Your task to perform on an android device: Open my contact list Image 0: 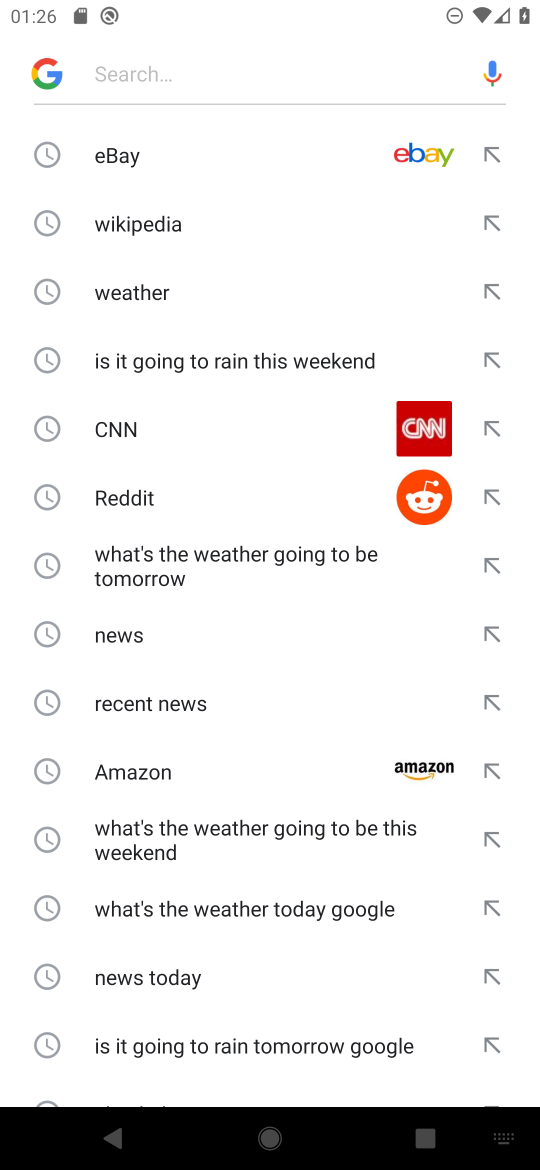
Step 0: press home button
Your task to perform on an android device: Open my contact list Image 1: 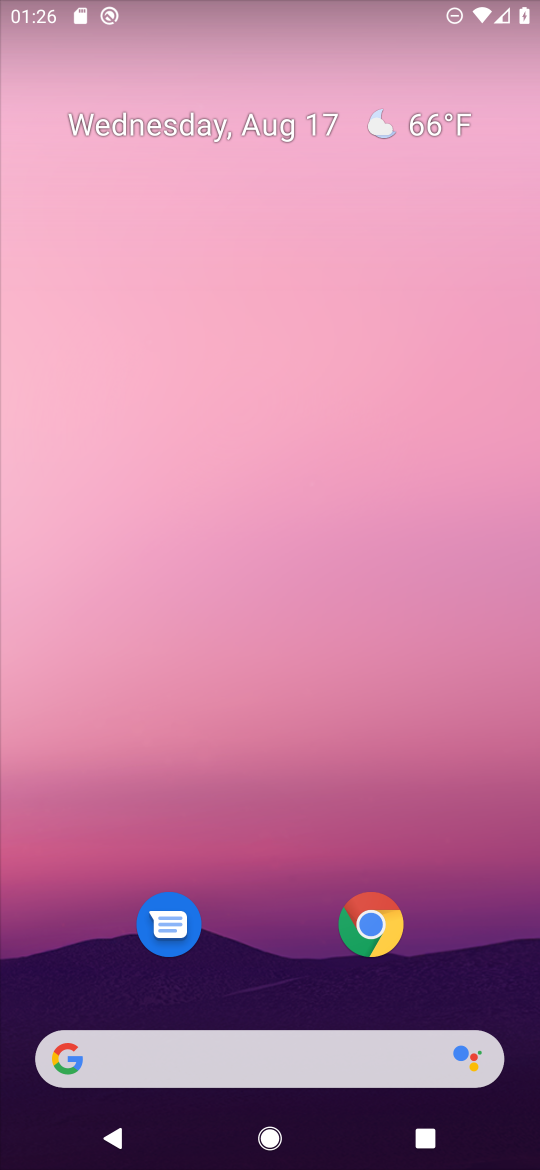
Step 1: drag from (271, 1002) to (245, 397)
Your task to perform on an android device: Open my contact list Image 2: 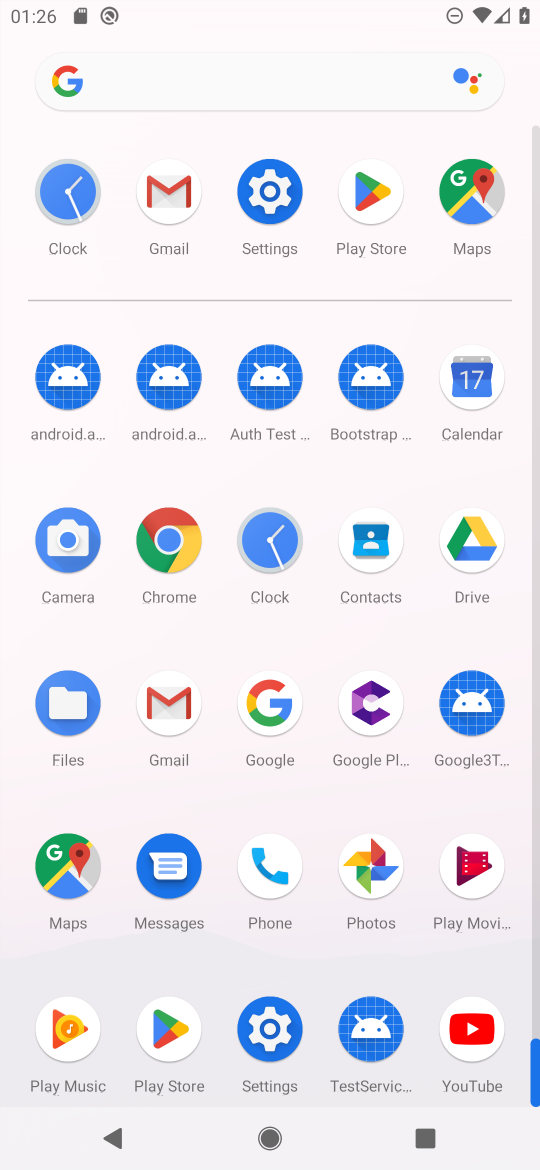
Step 2: click (370, 535)
Your task to perform on an android device: Open my contact list Image 3: 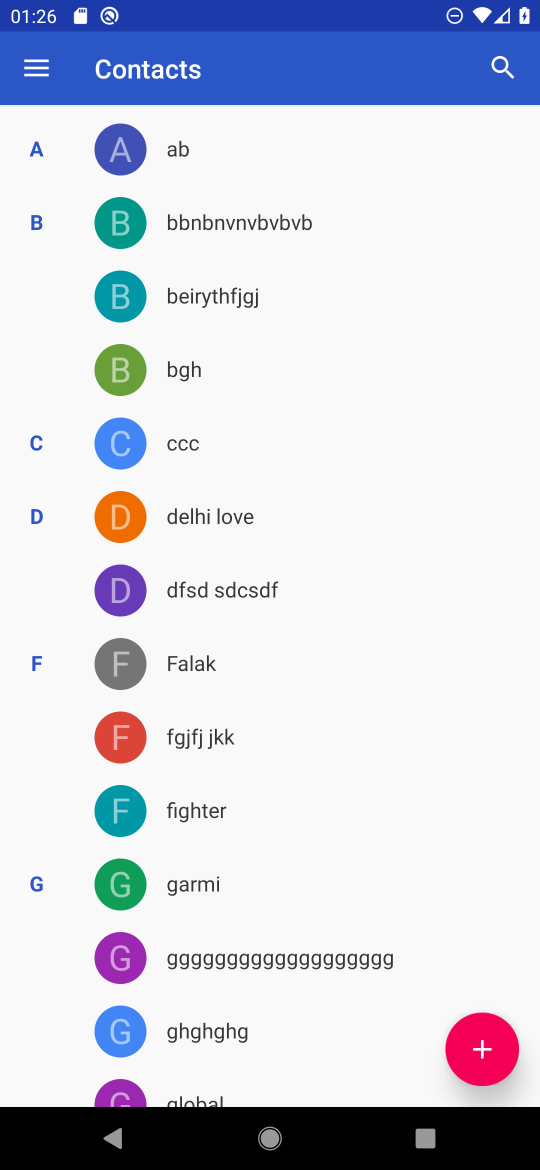
Step 3: task complete